Your task to perform on an android device: toggle show notifications on the lock screen Image 0: 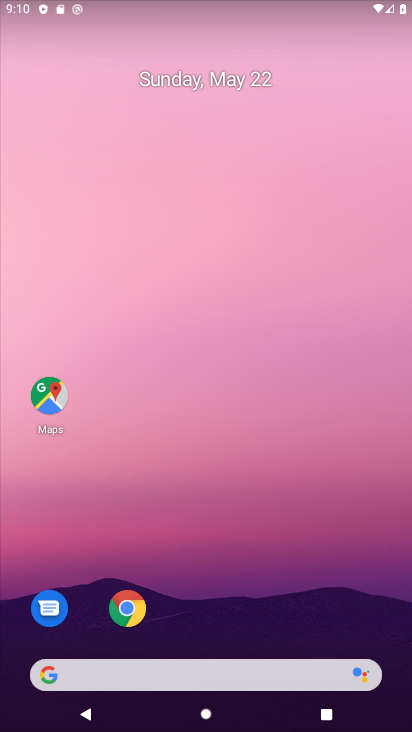
Step 0: drag from (198, 422) to (177, 15)
Your task to perform on an android device: toggle show notifications on the lock screen Image 1: 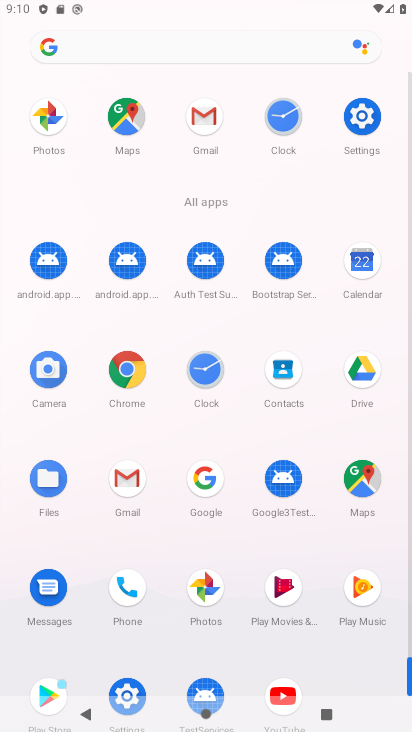
Step 1: drag from (9, 400) to (17, 145)
Your task to perform on an android device: toggle show notifications on the lock screen Image 2: 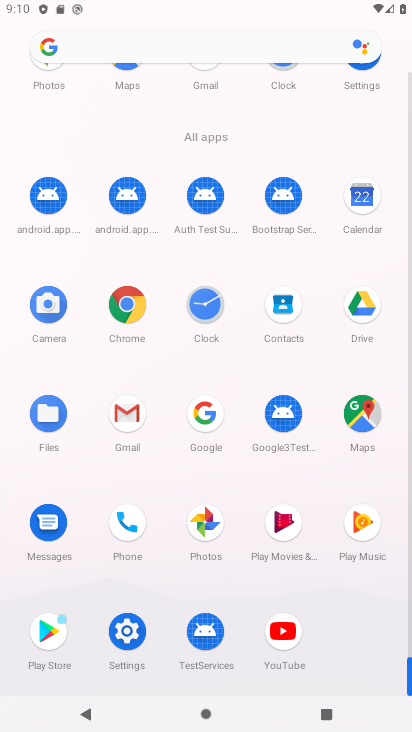
Step 2: click (125, 627)
Your task to perform on an android device: toggle show notifications on the lock screen Image 3: 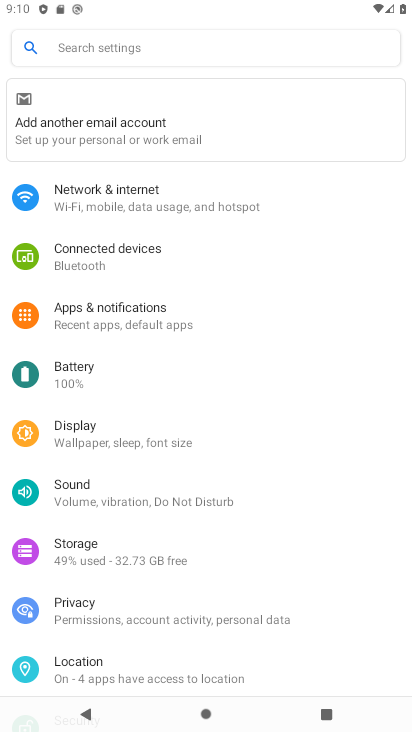
Step 3: click (121, 308)
Your task to perform on an android device: toggle show notifications on the lock screen Image 4: 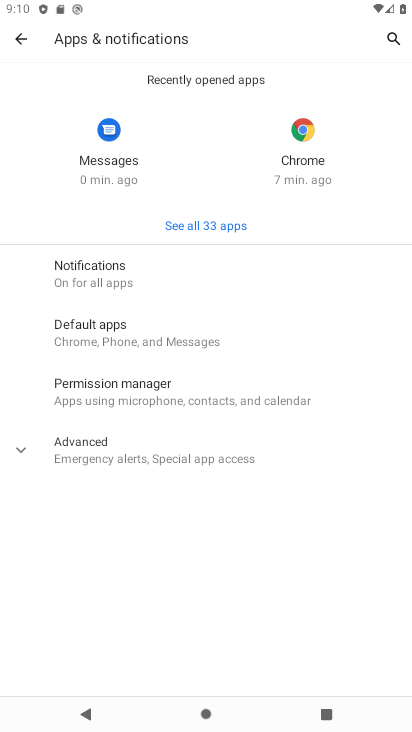
Step 4: click (9, 451)
Your task to perform on an android device: toggle show notifications on the lock screen Image 5: 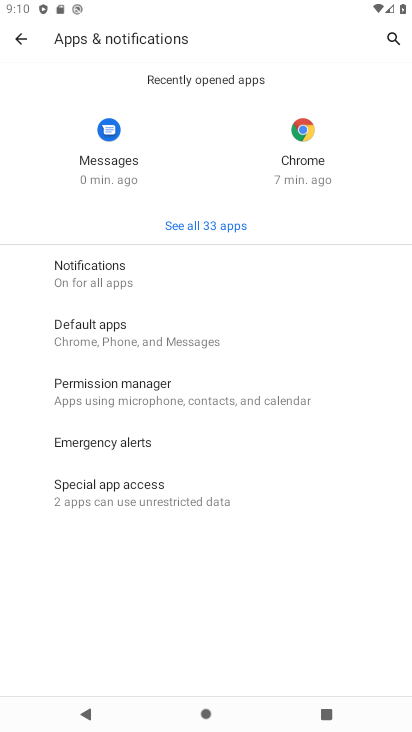
Step 5: click (115, 267)
Your task to perform on an android device: toggle show notifications on the lock screen Image 6: 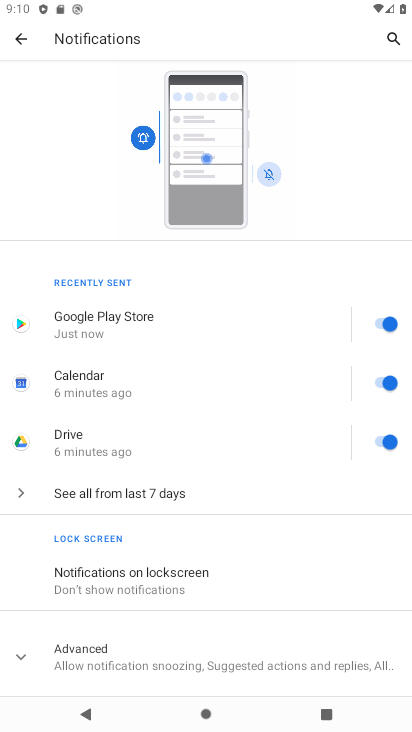
Step 6: click (134, 581)
Your task to perform on an android device: toggle show notifications on the lock screen Image 7: 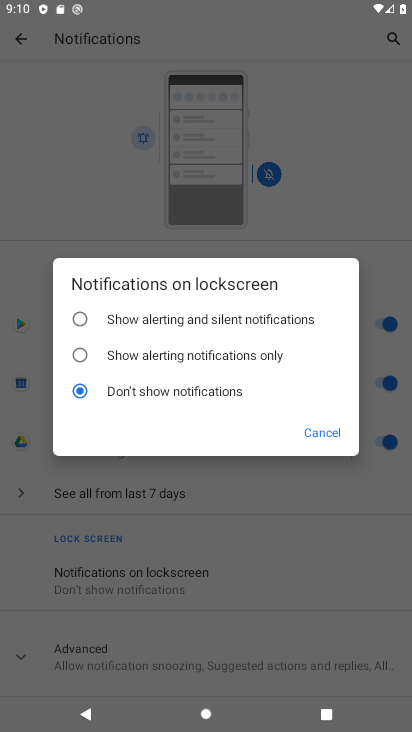
Step 7: click (183, 323)
Your task to perform on an android device: toggle show notifications on the lock screen Image 8: 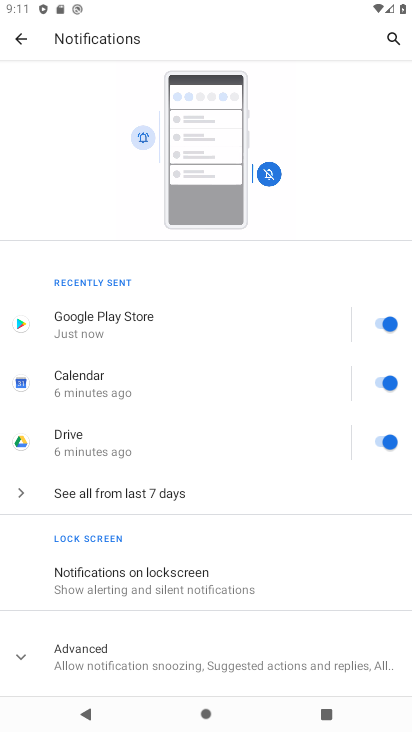
Step 8: click (23, 653)
Your task to perform on an android device: toggle show notifications on the lock screen Image 9: 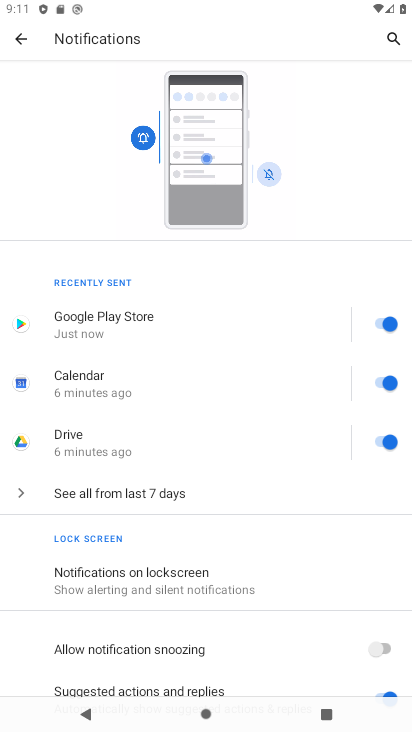
Step 9: task complete